Your task to perform on an android device: turn notification dots off Image 0: 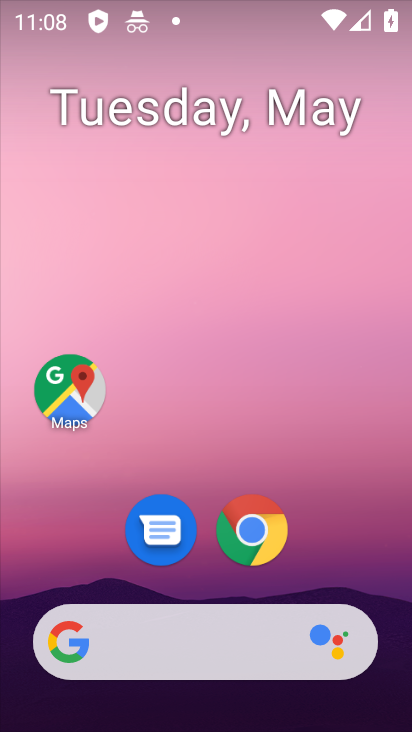
Step 0: drag from (348, 507) to (319, 105)
Your task to perform on an android device: turn notification dots off Image 1: 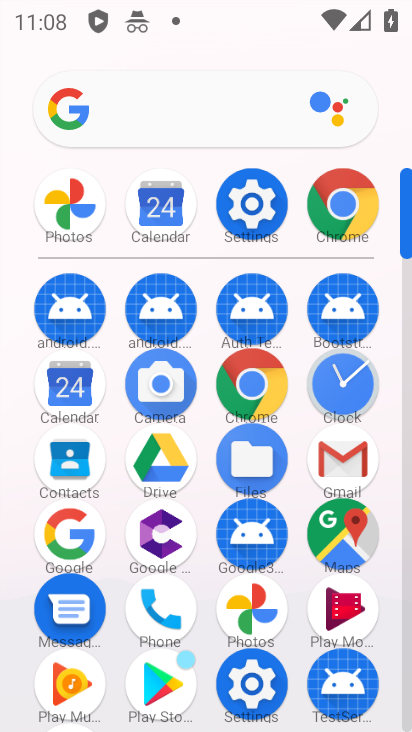
Step 1: click (242, 213)
Your task to perform on an android device: turn notification dots off Image 2: 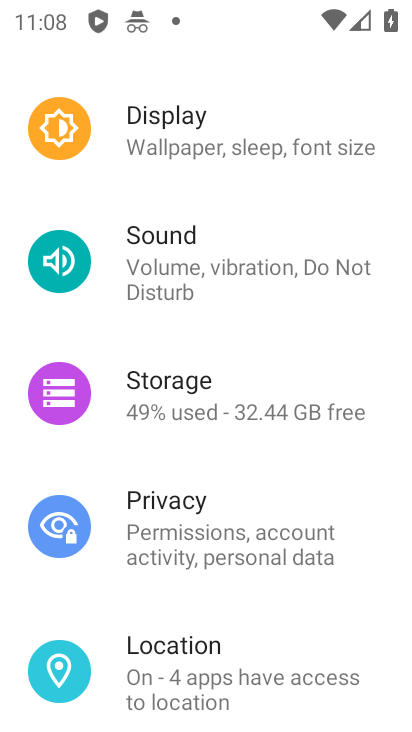
Step 2: drag from (209, 190) to (235, 665)
Your task to perform on an android device: turn notification dots off Image 3: 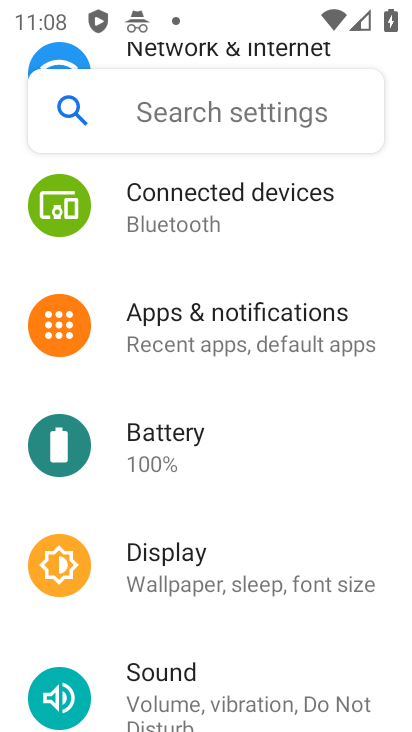
Step 3: drag from (254, 218) to (260, 611)
Your task to perform on an android device: turn notification dots off Image 4: 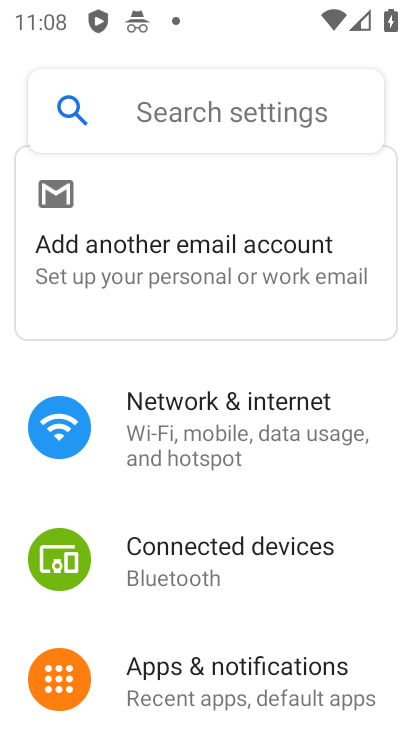
Step 4: drag from (216, 635) to (296, 270)
Your task to perform on an android device: turn notification dots off Image 5: 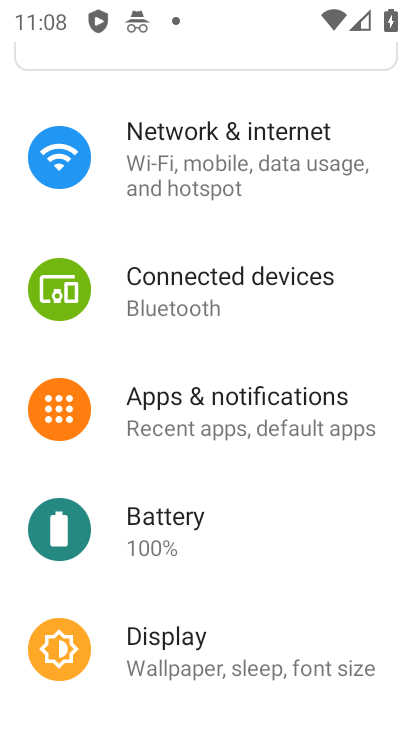
Step 5: click (233, 412)
Your task to perform on an android device: turn notification dots off Image 6: 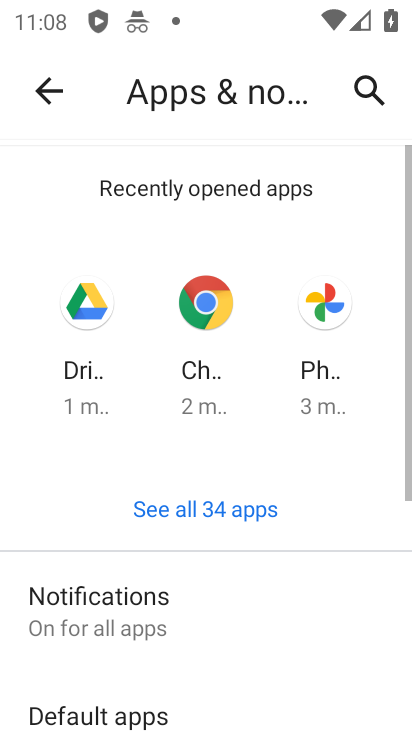
Step 6: drag from (205, 600) to (279, 194)
Your task to perform on an android device: turn notification dots off Image 7: 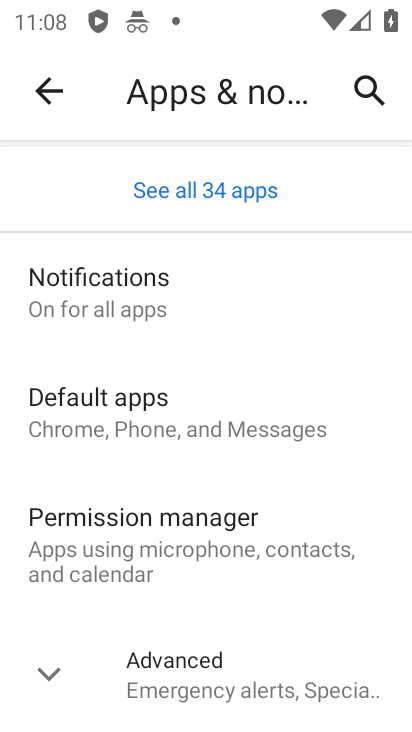
Step 7: click (143, 310)
Your task to perform on an android device: turn notification dots off Image 8: 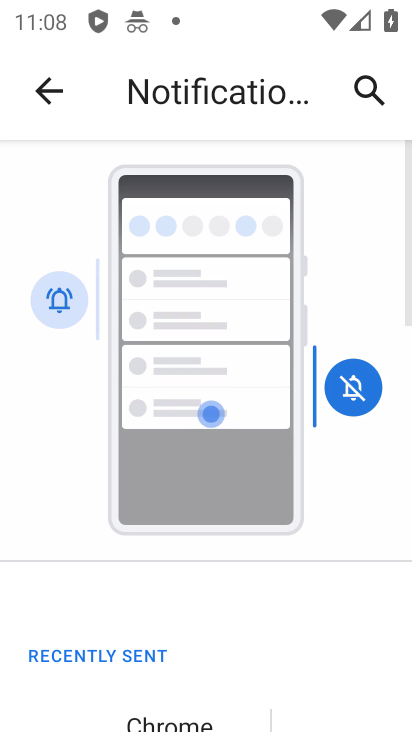
Step 8: drag from (221, 606) to (297, 86)
Your task to perform on an android device: turn notification dots off Image 9: 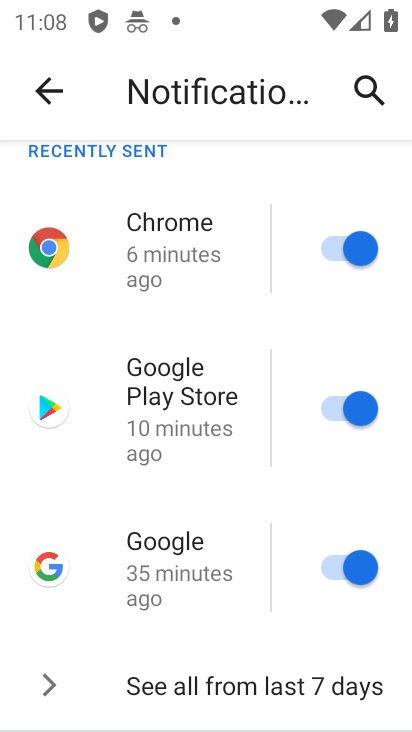
Step 9: drag from (198, 604) to (268, 143)
Your task to perform on an android device: turn notification dots off Image 10: 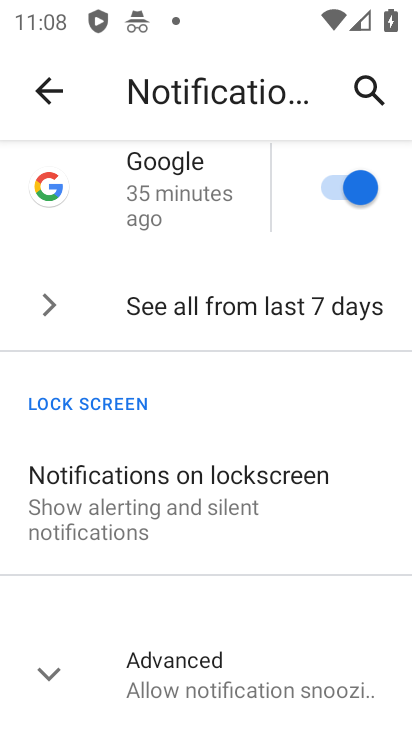
Step 10: drag from (134, 611) to (280, 168)
Your task to perform on an android device: turn notification dots off Image 11: 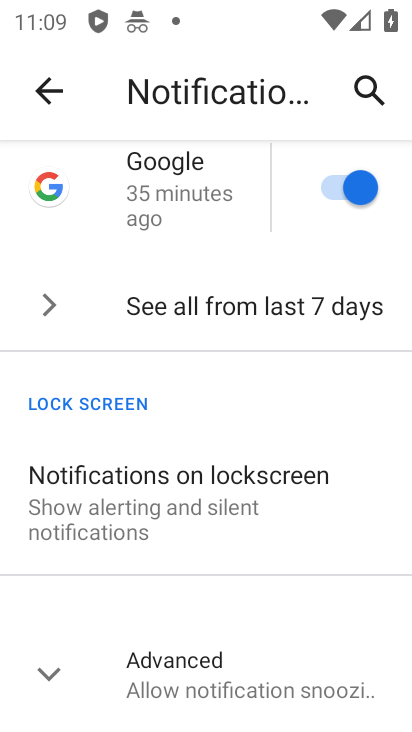
Step 11: click (171, 703)
Your task to perform on an android device: turn notification dots off Image 12: 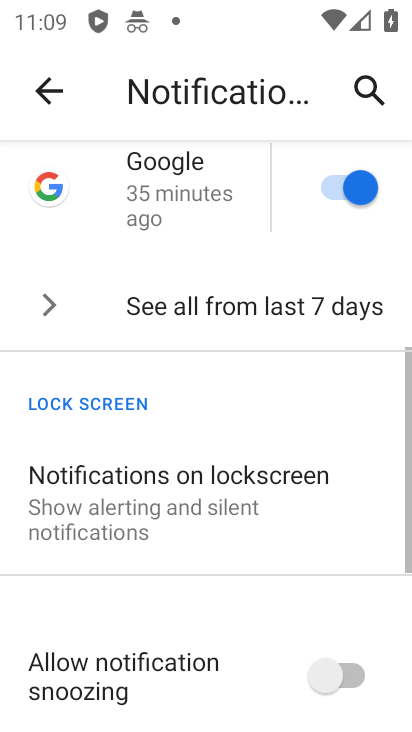
Step 12: drag from (272, 649) to (293, 176)
Your task to perform on an android device: turn notification dots off Image 13: 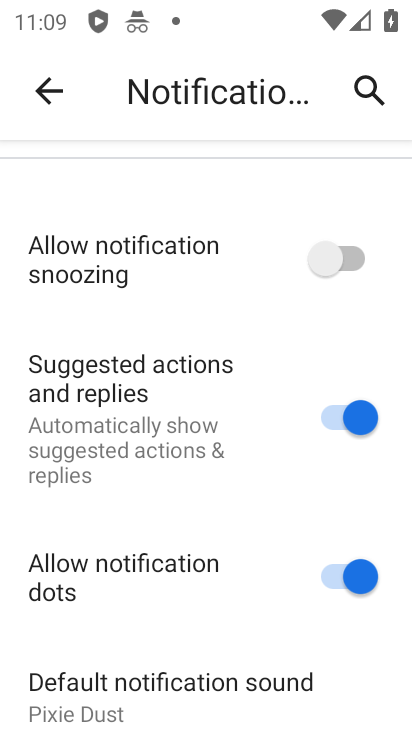
Step 13: click (352, 573)
Your task to perform on an android device: turn notification dots off Image 14: 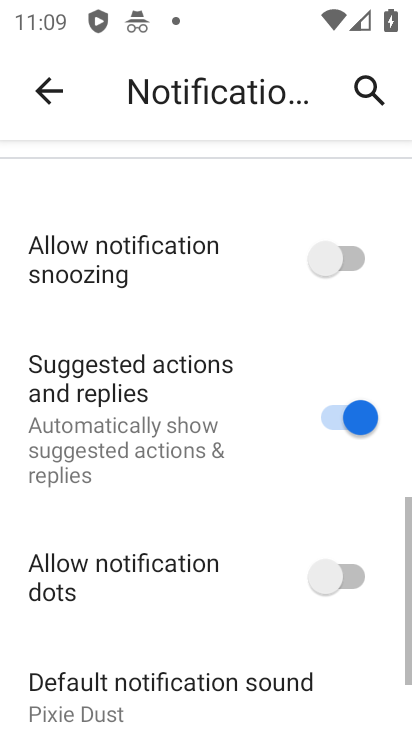
Step 14: task complete